Your task to perform on an android device: Open settings on Google Maps Image 0: 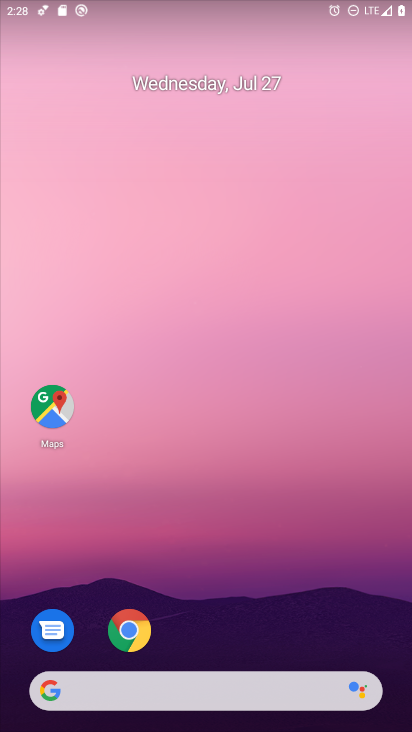
Step 0: click (53, 401)
Your task to perform on an android device: Open settings on Google Maps Image 1: 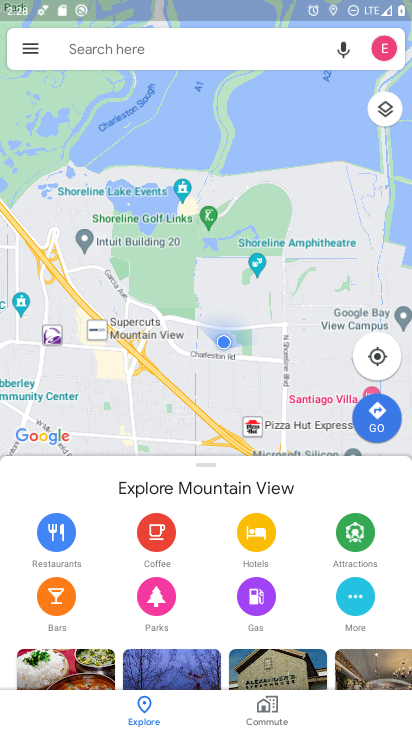
Step 1: click (27, 46)
Your task to perform on an android device: Open settings on Google Maps Image 2: 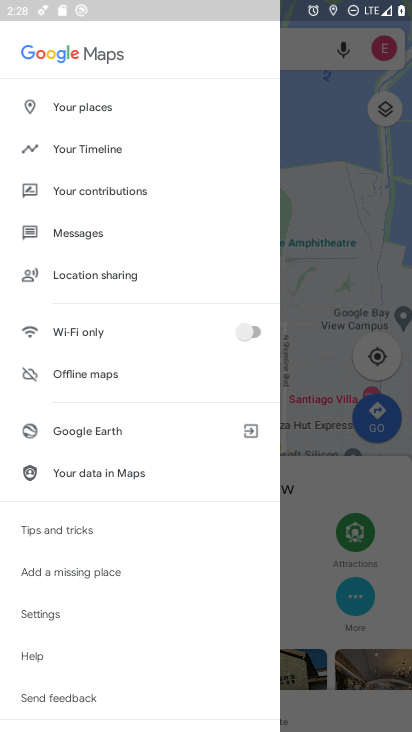
Step 2: click (48, 611)
Your task to perform on an android device: Open settings on Google Maps Image 3: 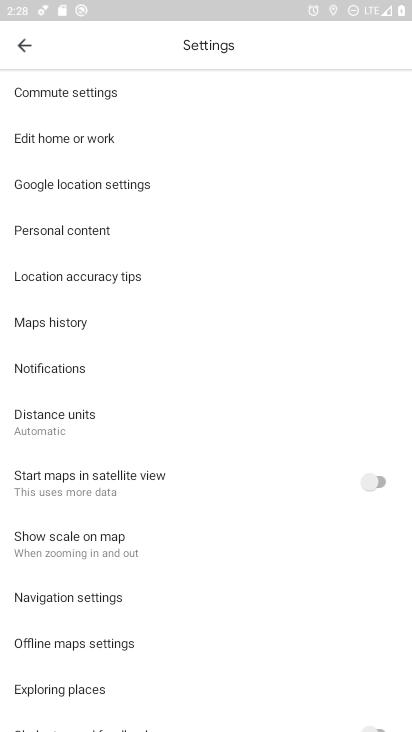
Step 3: task complete